Your task to perform on an android device: star an email in the gmail app Image 0: 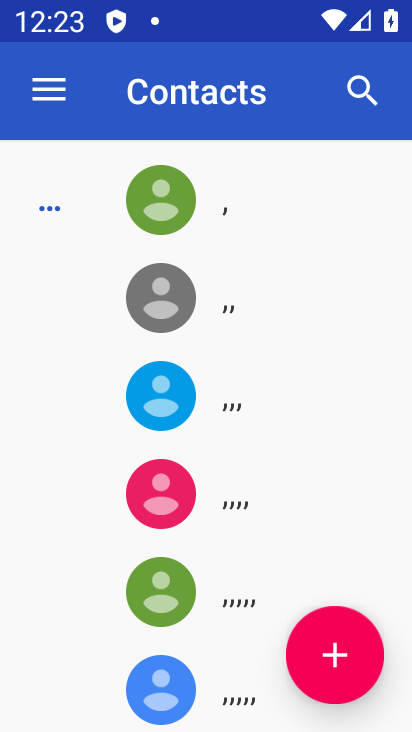
Step 0: press home button
Your task to perform on an android device: star an email in the gmail app Image 1: 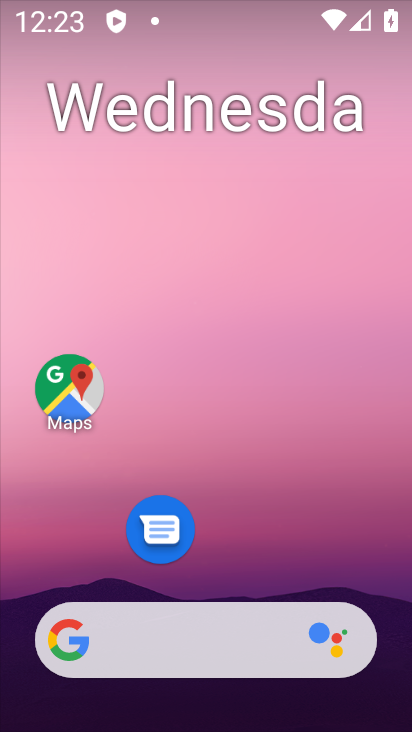
Step 1: drag from (253, 614) to (367, 488)
Your task to perform on an android device: star an email in the gmail app Image 2: 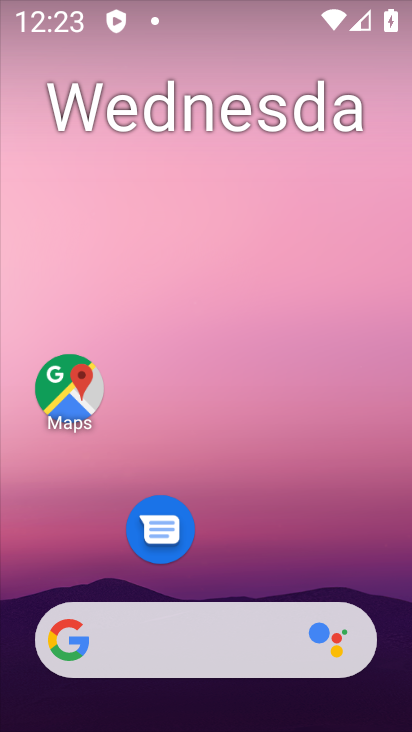
Step 2: drag from (285, 585) to (411, 270)
Your task to perform on an android device: star an email in the gmail app Image 3: 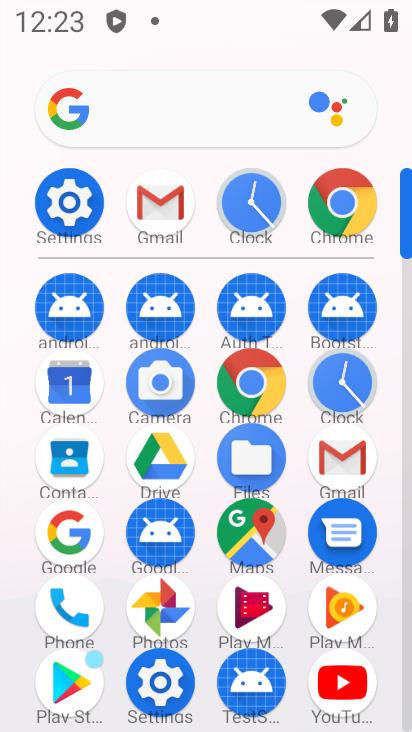
Step 3: click (331, 470)
Your task to perform on an android device: star an email in the gmail app Image 4: 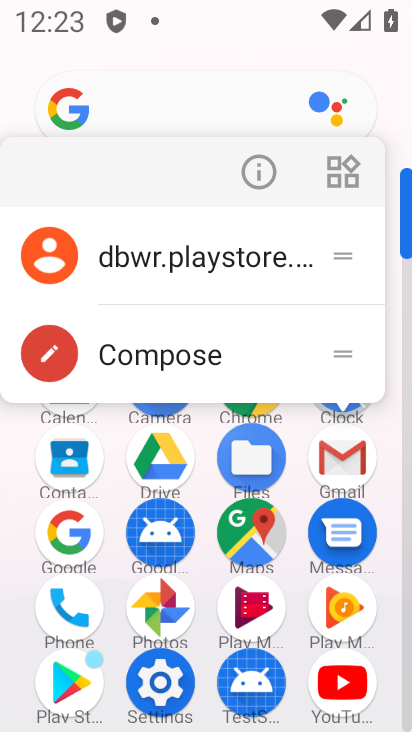
Step 4: click (326, 466)
Your task to perform on an android device: star an email in the gmail app Image 5: 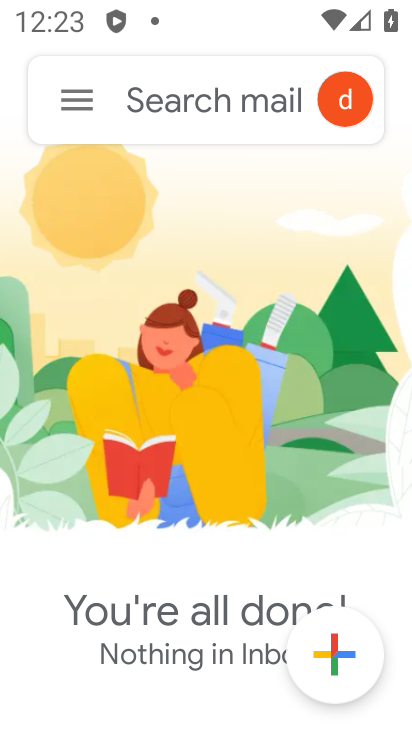
Step 5: click (67, 92)
Your task to perform on an android device: star an email in the gmail app Image 6: 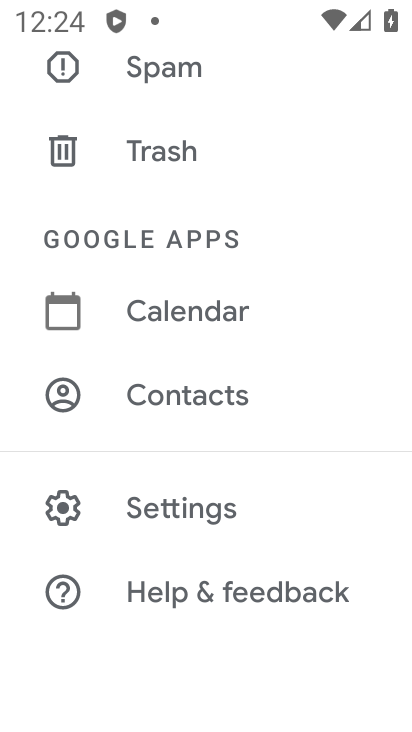
Step 6: drag from (148, 216) to (181, 729)
Your task to perform on an android device: star an email in the gmail app Image 7: 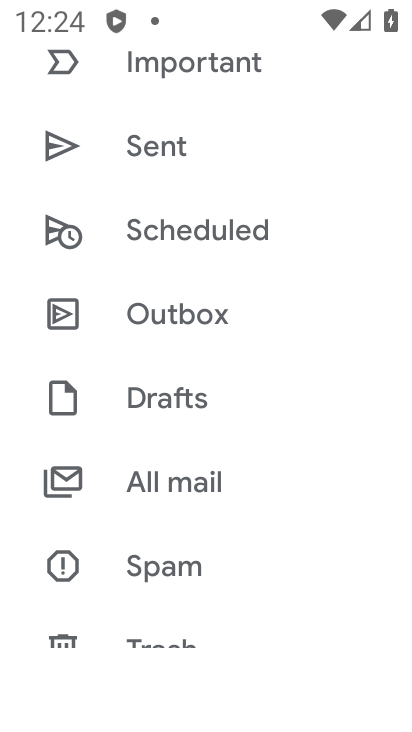
Step 7: drag from (163, 154) to (189, 544)
Your task to perform on an android device: star an email in the gmail app Image 8: 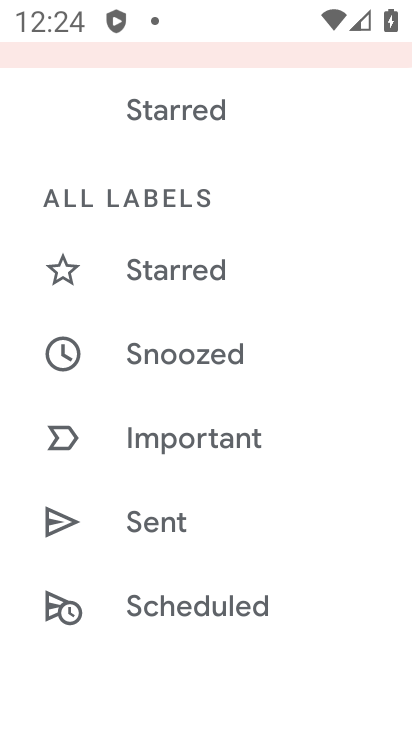
Step 8: click (187, 540)
Your task to perform on an android device: star an email in the gmail app Image 9: 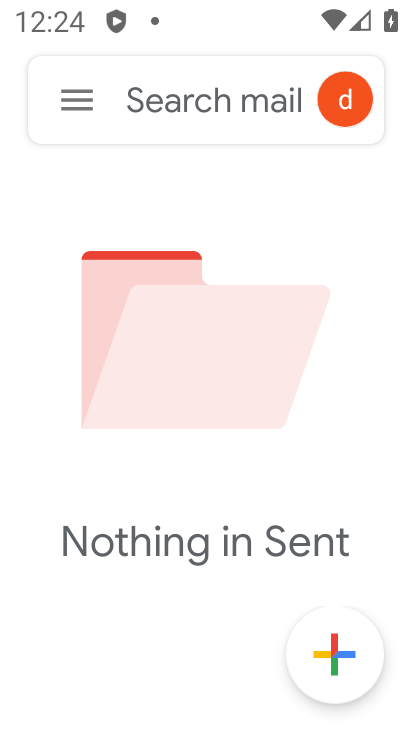
Step 9: task complete